Your task to perform on an android device: open a new tab in the chrome app Image 0: 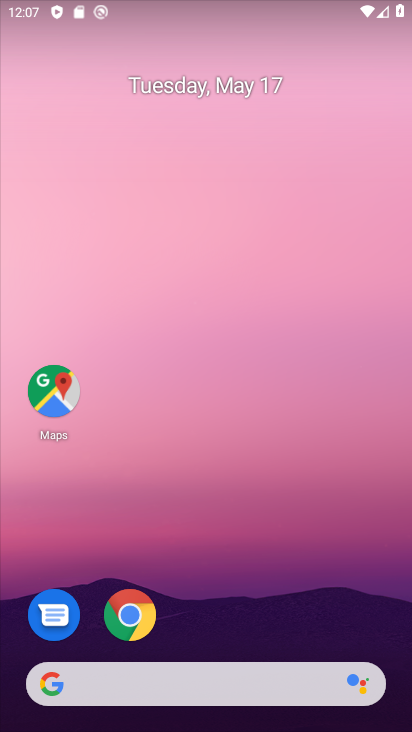
Step 0: click (119, 618)
Your task to perform on an android device: open a new tab in the chrome app Image 1: 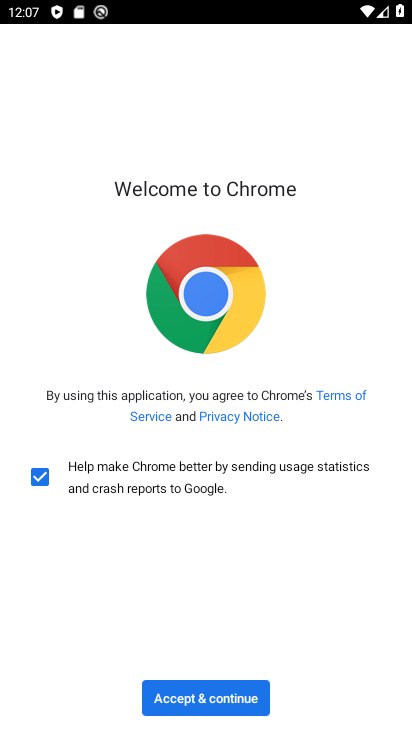
Step 1: click (187, 708)
Your task to perform on an android device: open a new tab in the chrome app Image 2: 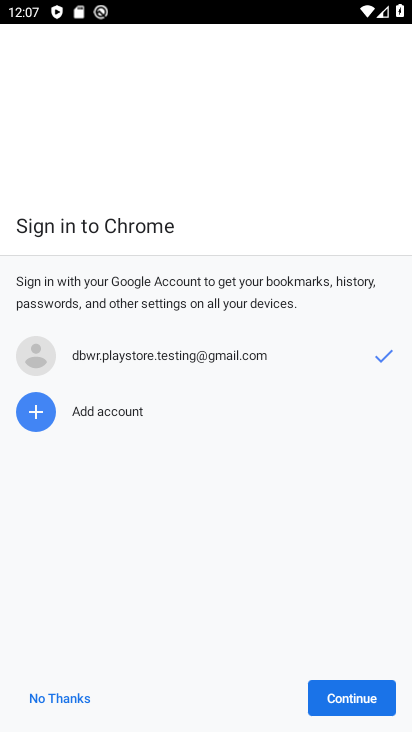
Step 2: click (354, 692)
Your task to perform on an android device: open a new tab in the chrome app Image 3: 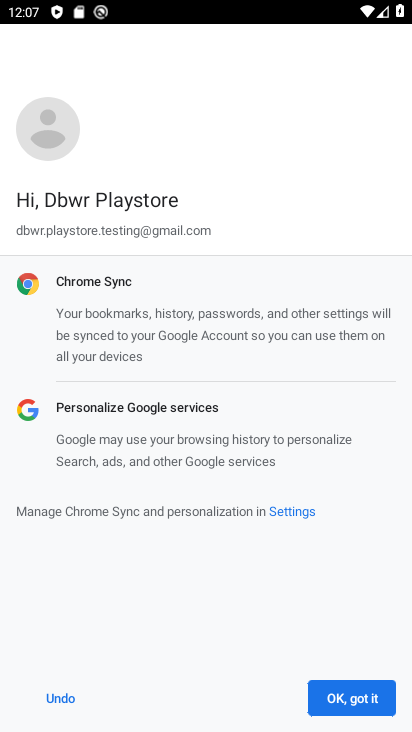
Step 3: click (324, 708)
Your task to perform on an android device: open a new tab in the chrome app Image 4: 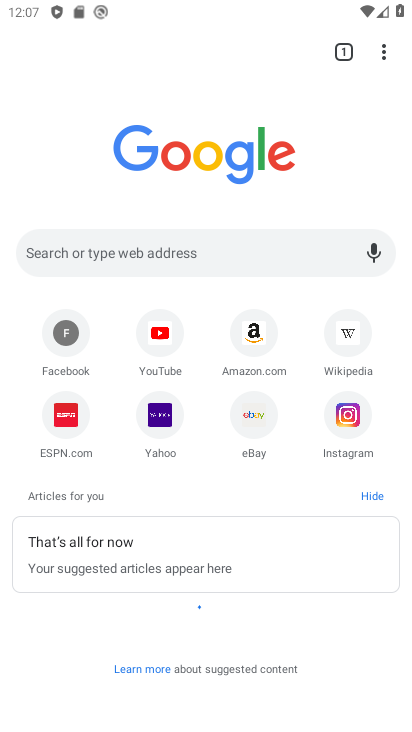
Step 4: click (388, 50)
Your task to perform on an android device: open a new tab in the chrome app Image 5: 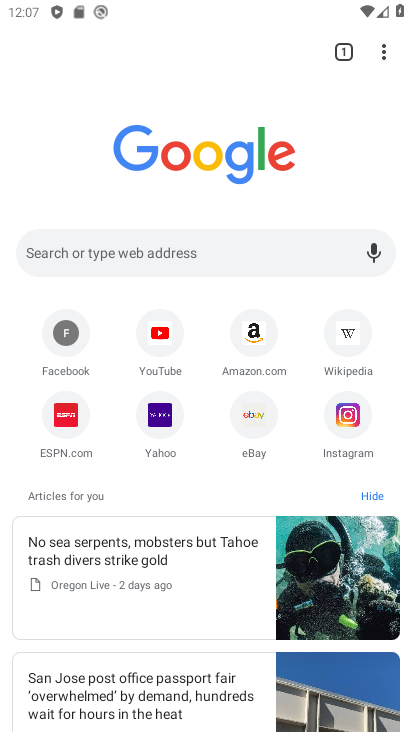
Step 5: click (386, 43)
Your task to perform on an android device: open a new tab in the chrome app Image 6: 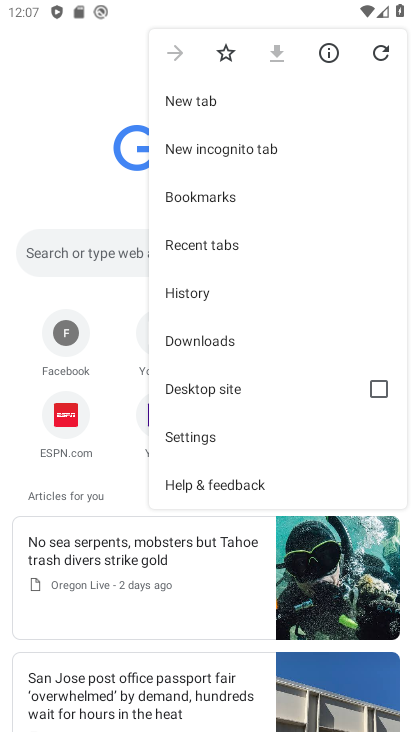
Step 6: click (204, 108)
Your task to perform on an android device: open a new tab in the chrome app Image 7: 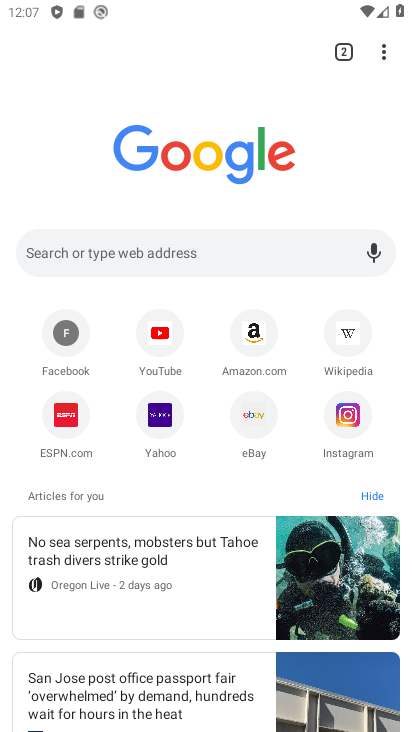
Step 7: task complete